Your task to perform on an android device: What's the weather going to be tomorrow? Image 0: 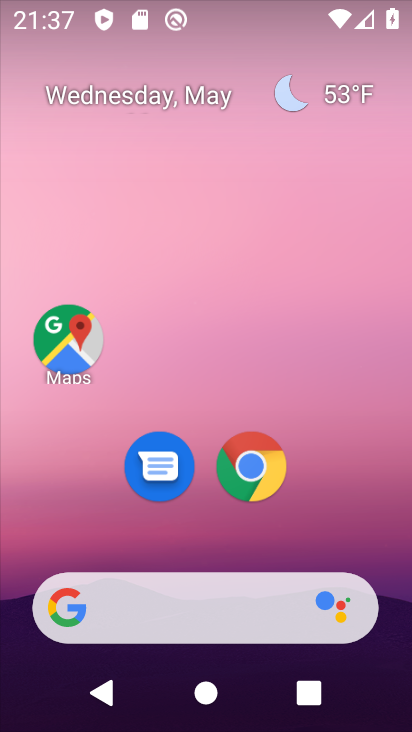
Step 0: drag from (222, 401) to (408, 608)
Your task to perform on an android device: What's the weather going to be tomorrow? Image 1: 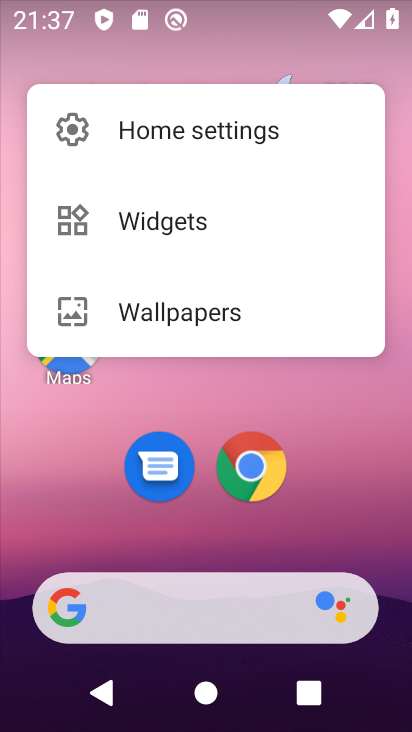
Step 1: click (177, 550)
Your task to perform on an android device: What's the weather going to be tomorrow? Image 2: 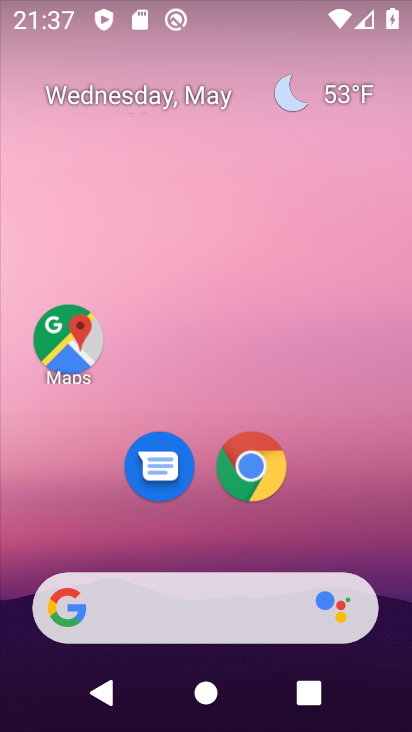
Step 2: drag from (199, 500) to (286, 93)
Your task to perform on an android device: What's the weather going to be tomorrow? Image 3: 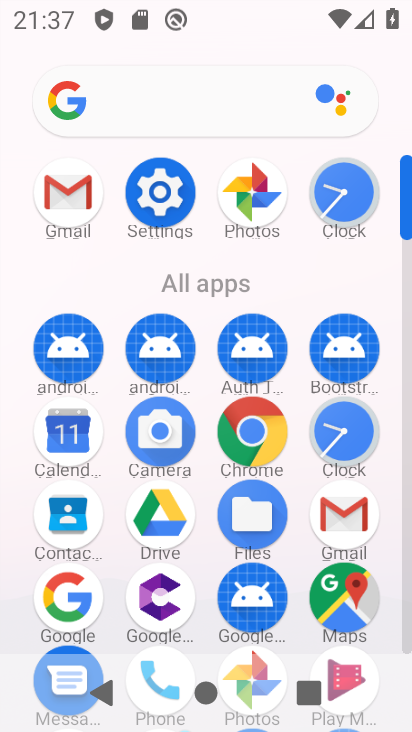
Step 3: click (205, 86)
Your task to perform on an android device: What's the weather going to be tomorrow? Image 4: 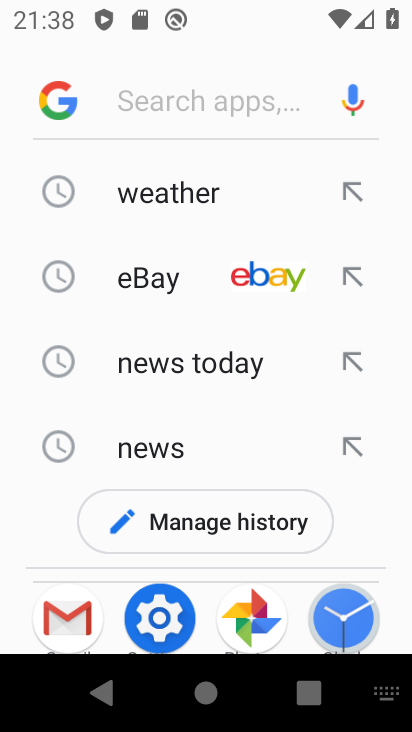
Step 4: type "weather tomorrow"
Your task to perform on an android device: What's the weather going to be tomorrow? Image 5: 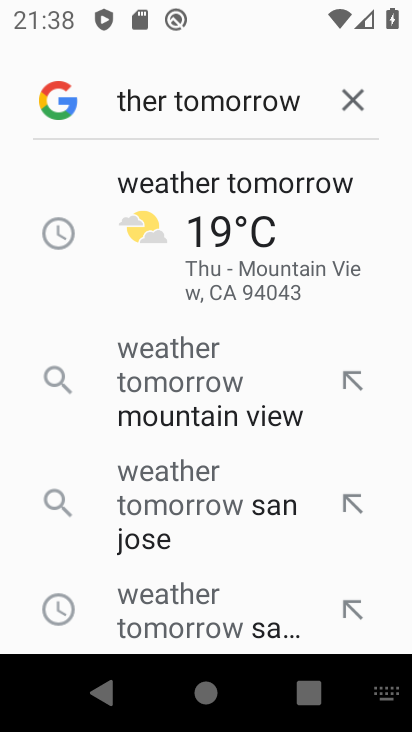
Step 5: drag from (214, 521) to (241, 341)
Your task to perform on an android device: What's the weather going to be tomorrow? Image 6: 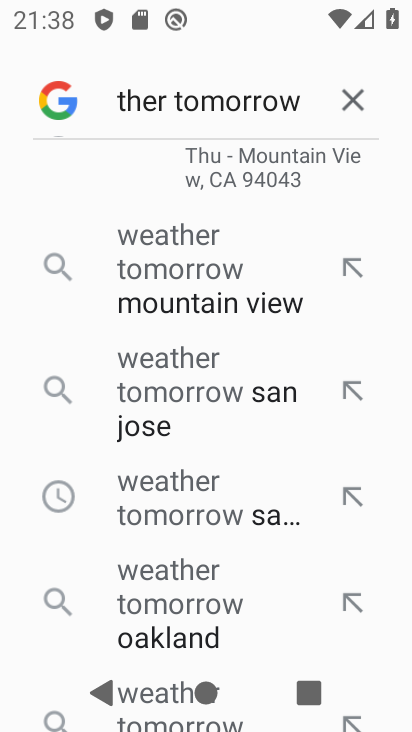
Step 6: click (203, 174)
Your task to perform on an android device: What's the weather going to be tomorrow? Image 7: 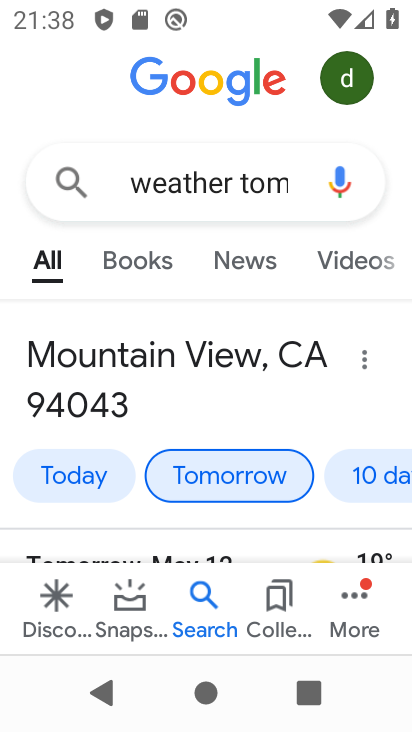
Step 7: task complete